Your task to perform on an android device: Go to battery settings Image 0: 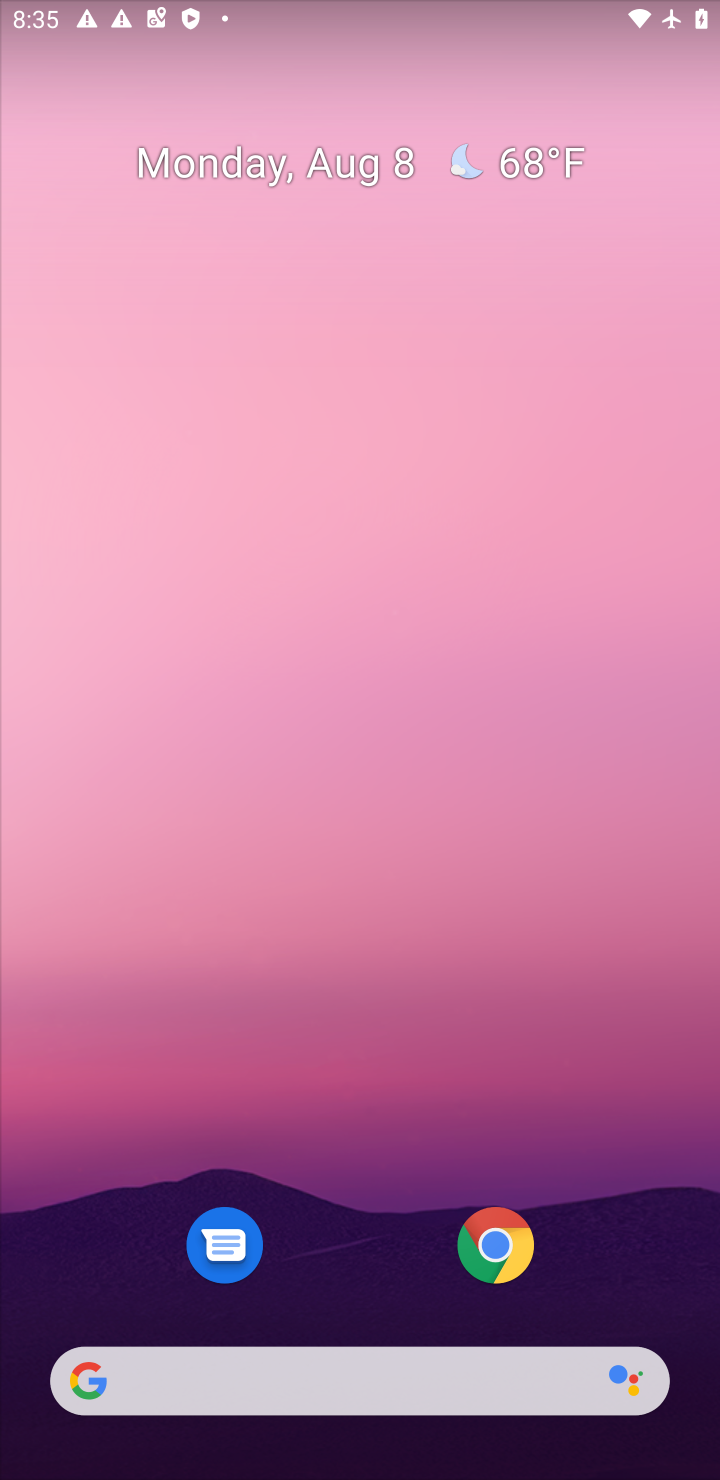
Step 0: drag from (387, 1172) to (354, 4)
Your task to perform on an android device: Go to battery settings Image 1: 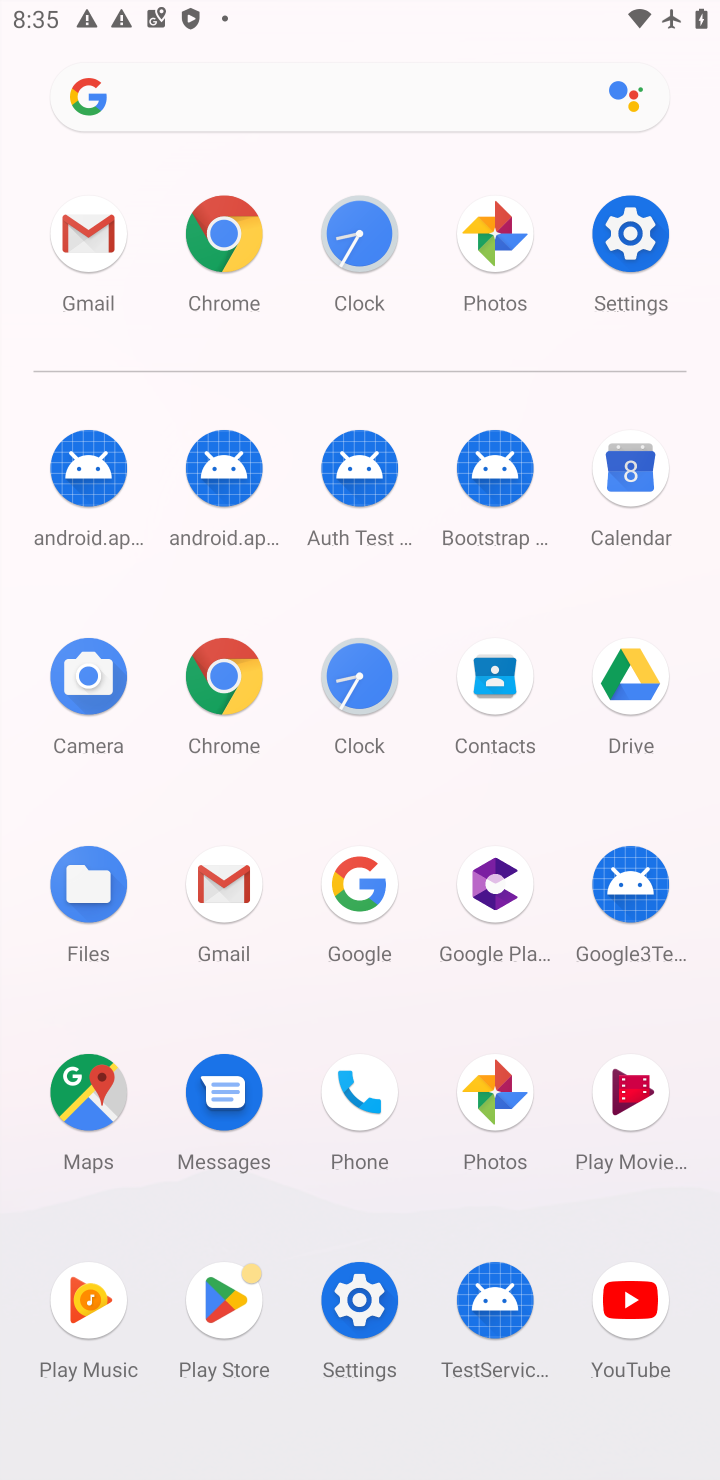
Step 1: click (630, 283)
Your task to perform on an android device: Go to battery settings Image 2: 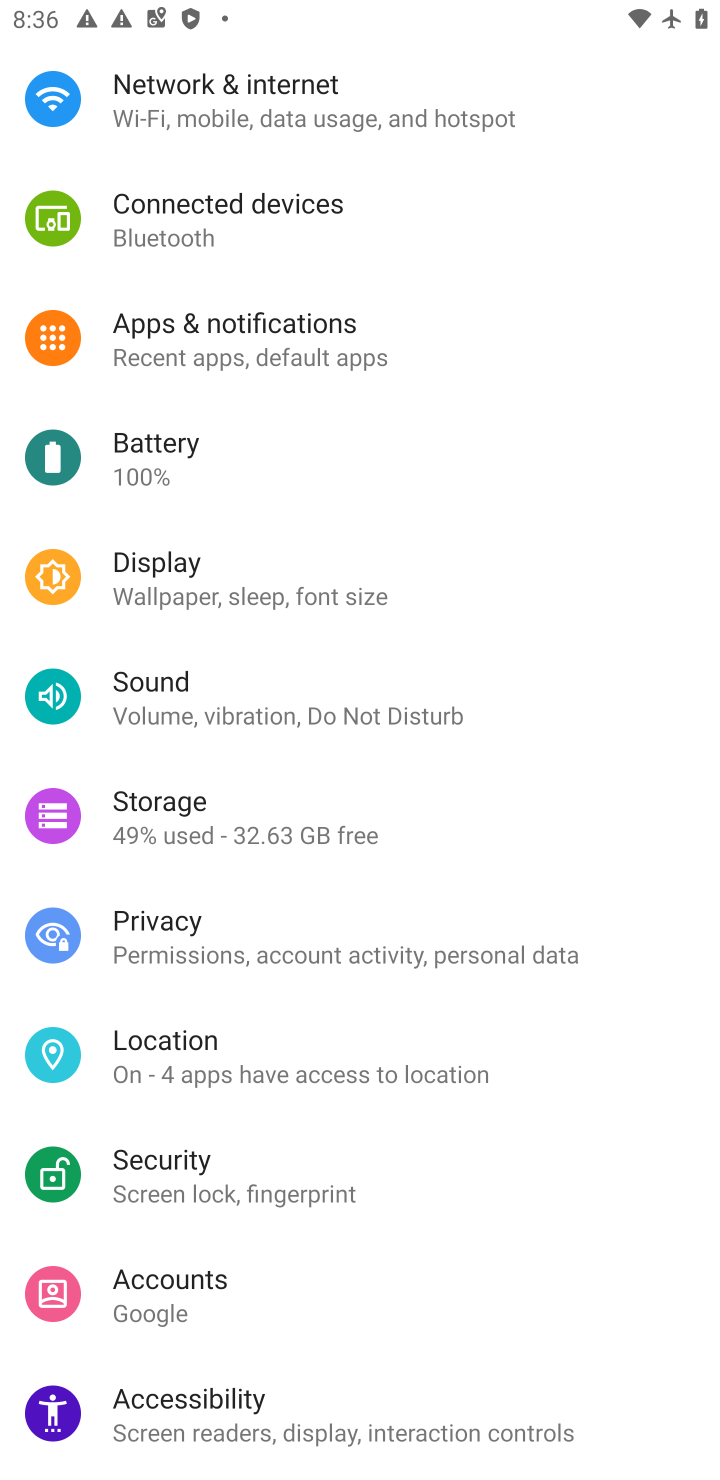
Step 2: click (183, 463)
Your task to perform on an android device: Go to battery settings Image 3: 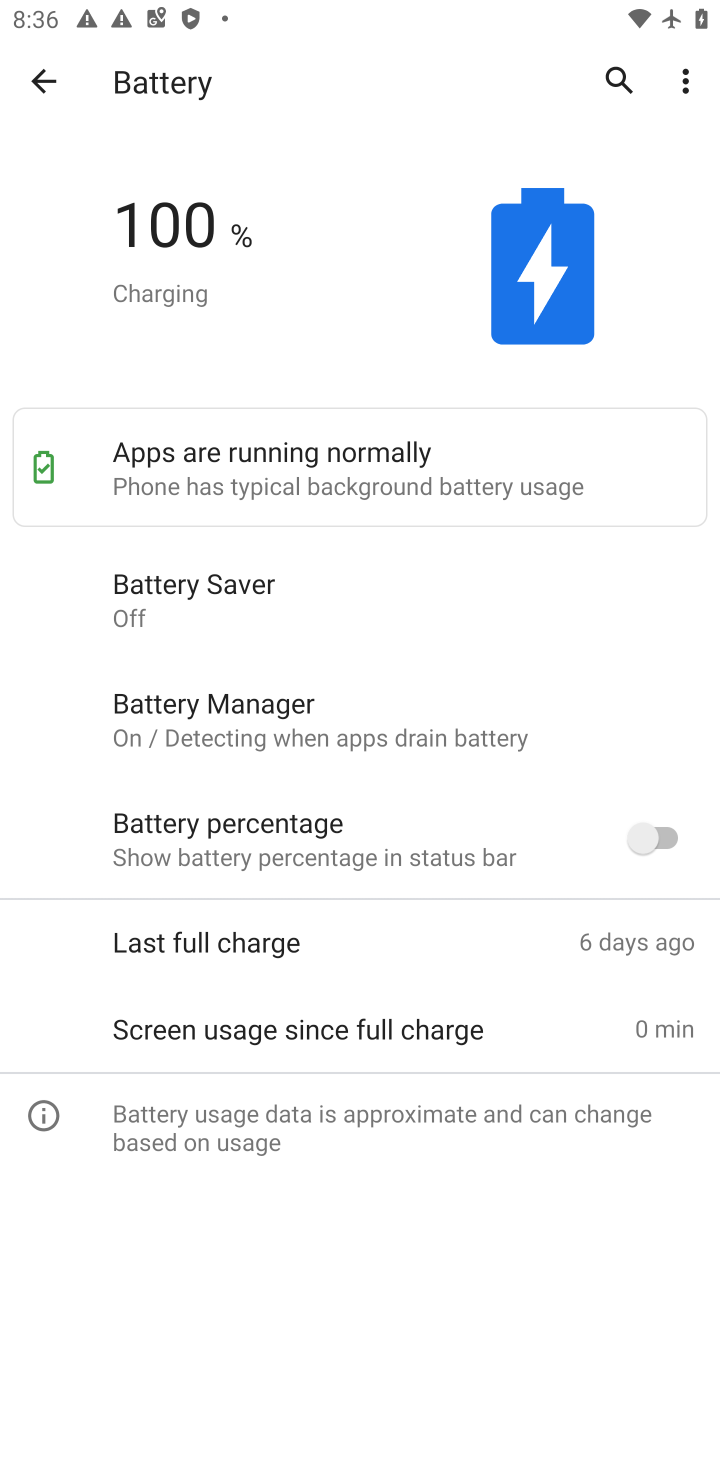
Step 3: task complete